Your task to perform on an android device: Turn off the flashlight Image 0: 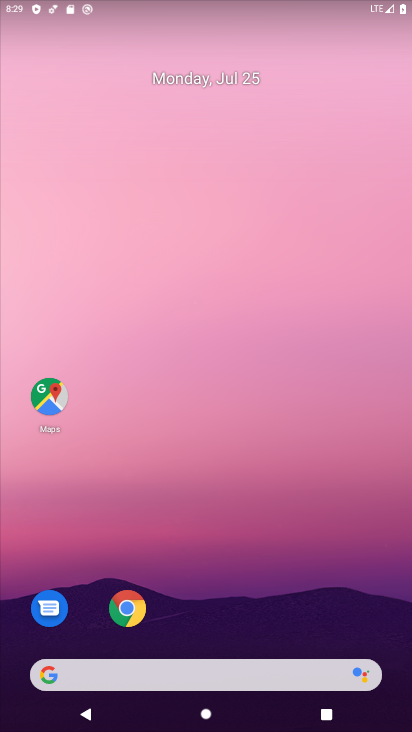
Step 0: drag from (235, 704) to (233, 58)
Your task to perform on an android device: Turn off the flashlight Image 1: 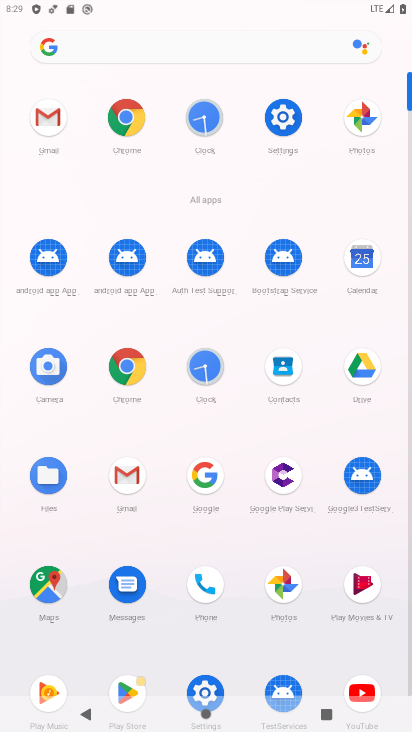
Step 1: click (284, 123)
Your task to perform on an android device: Turn off the flashlight Image 2: 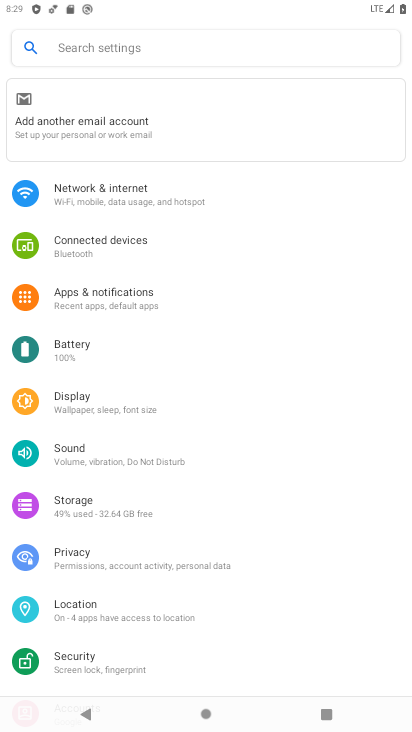
Step 2: task complete